Your task to perform on an android device: change the clock display to show seconds Image 0: 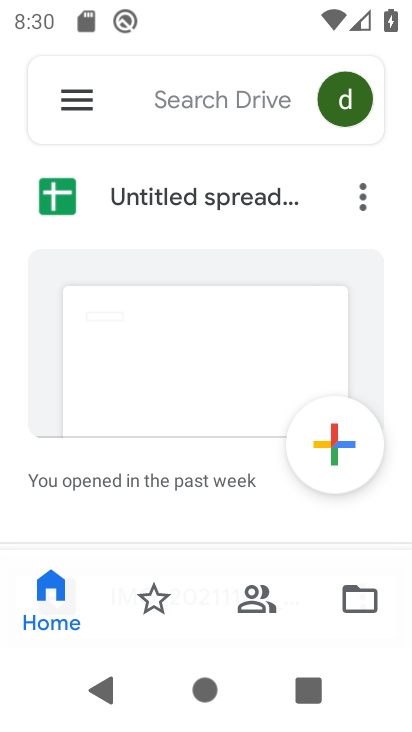
Step 0: press home button
Your task to perform on an android device: change the clock display to show seconds Image 1: 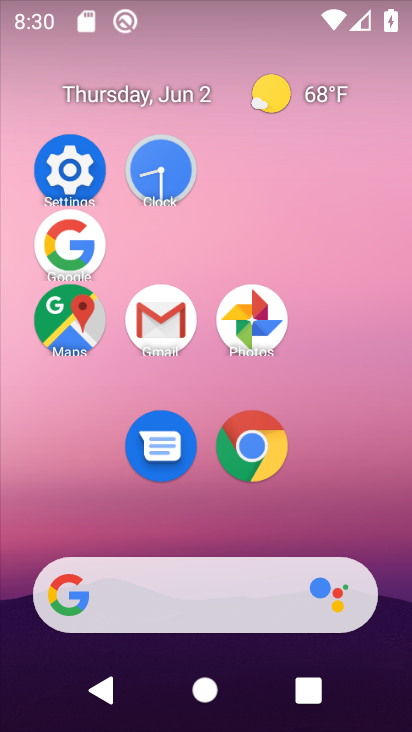
Step 1: click (161, 165)
Your task to perform on an android device: change the clock display to show seconds Image 2: 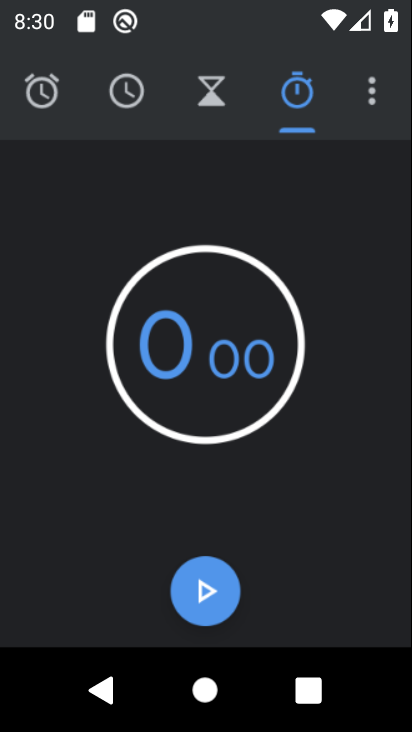
Step 2: click (373, 82)
Your task to perform on an android device: change the clock display to show seconds Image 3: 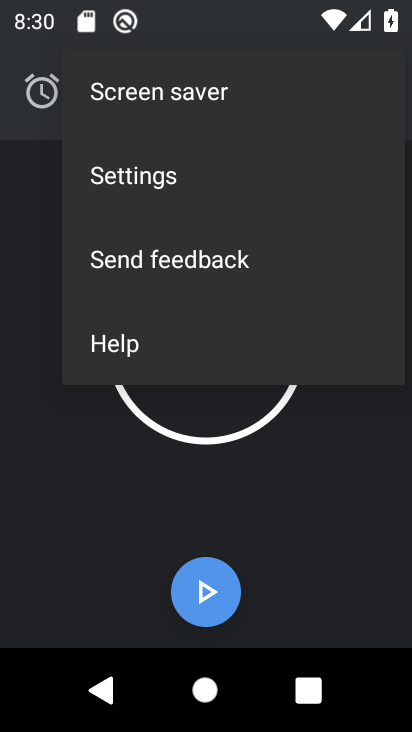
Step 3: click (221, 191)
Your task to perform on an android device: change the clock display to show seconds Image 4: 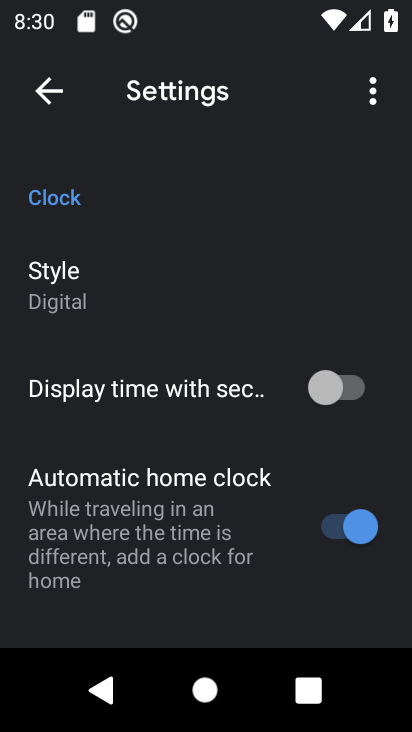
Step 4: click (327, 388)
Your task to perform on an android device: change the clock display to show seconds Image 5: 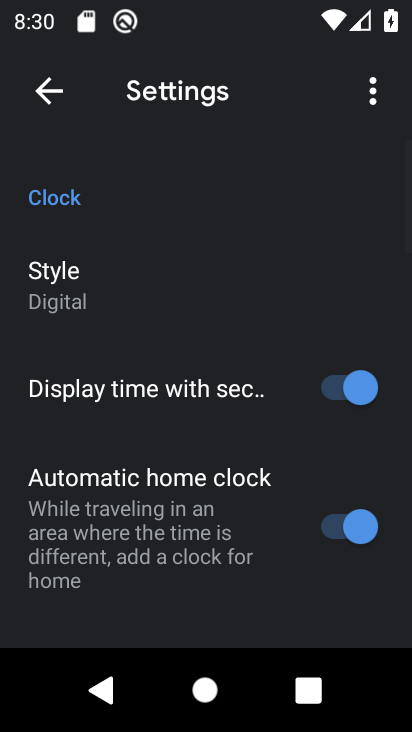
Step 5: task complete